Your task to perform on an android device: open app "DuckDuckGo Privacy Browser" Image 0: 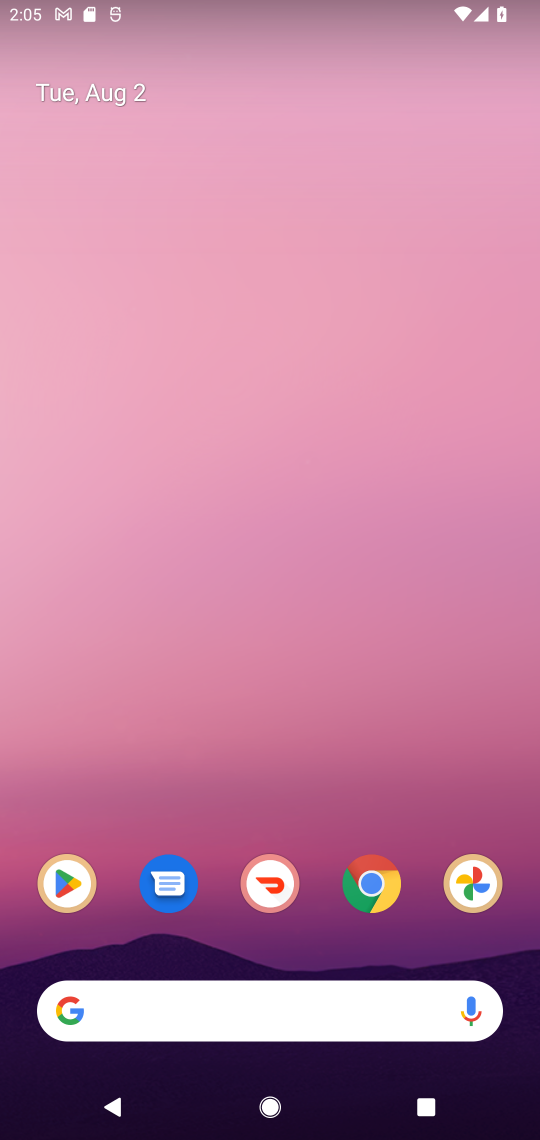
Step 0: click (62, 885)
Your task to perform on an android device: open app "DuckDuckGo Privacy Browser" Image 1: 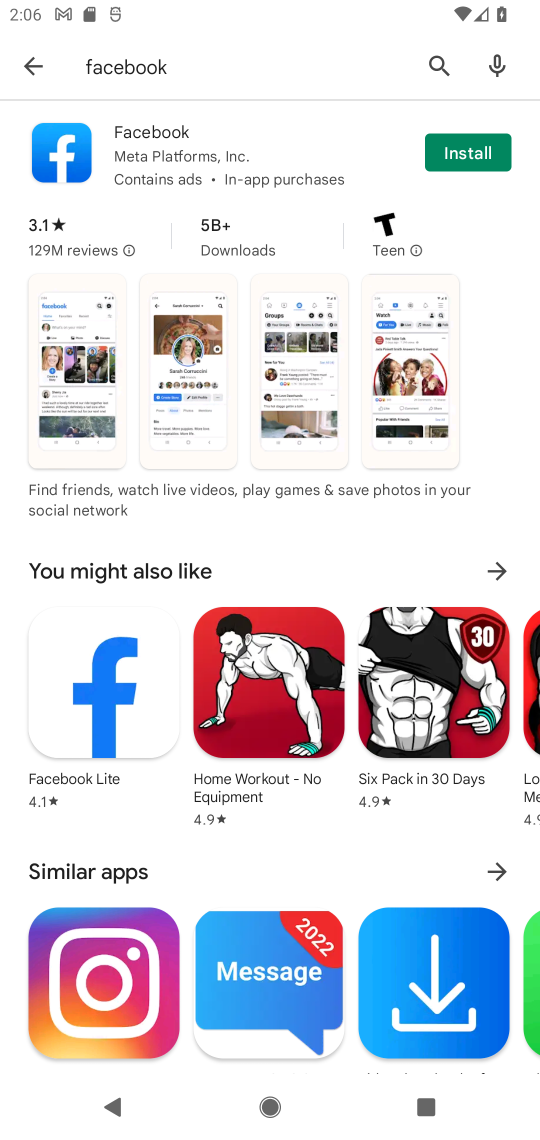
Step 1: press home button
Your task to perform on an android device: open app "DuckDuckGo Privacy Browser" Image 2: 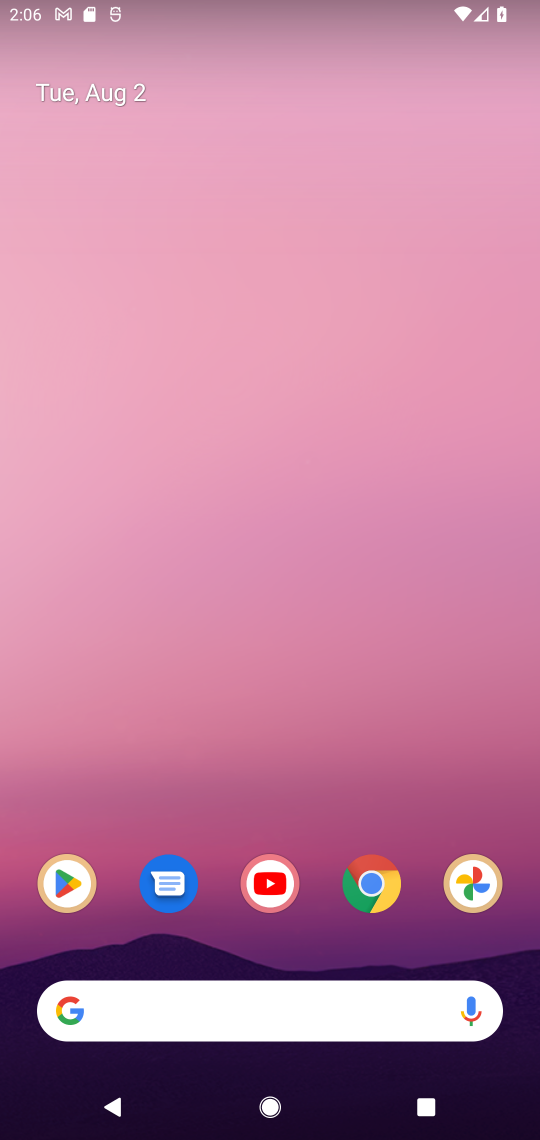
Step 2: click (69, 872)
Your task to perform on an android device: open app "DuckDuckGo Privacy Browser" Image 3: 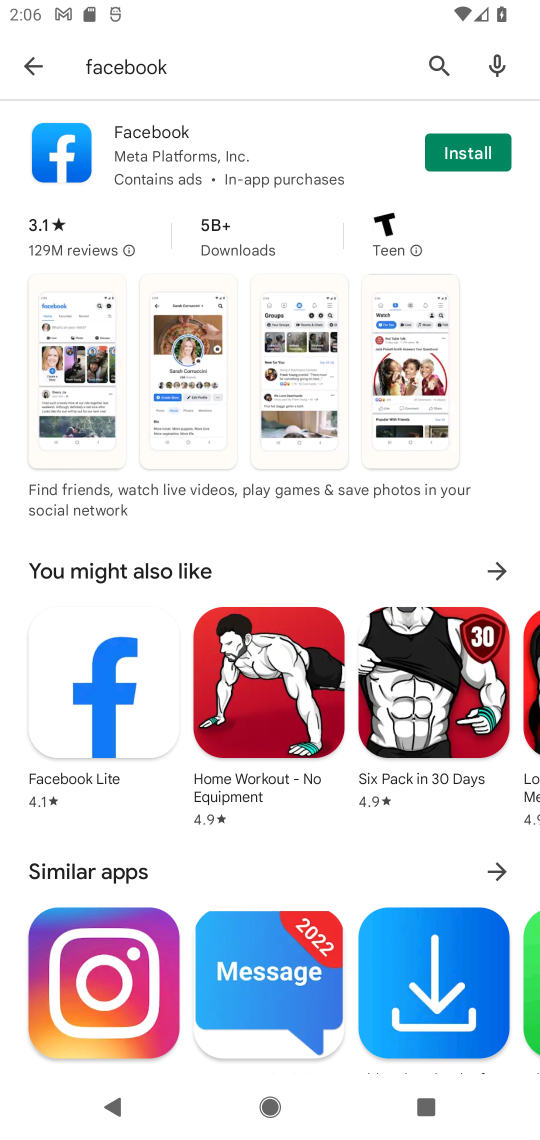
Step 3: click (435, 55)
Your task to perform on an android device: open app "DuckDuckGo Privacy Browser" Image 4: 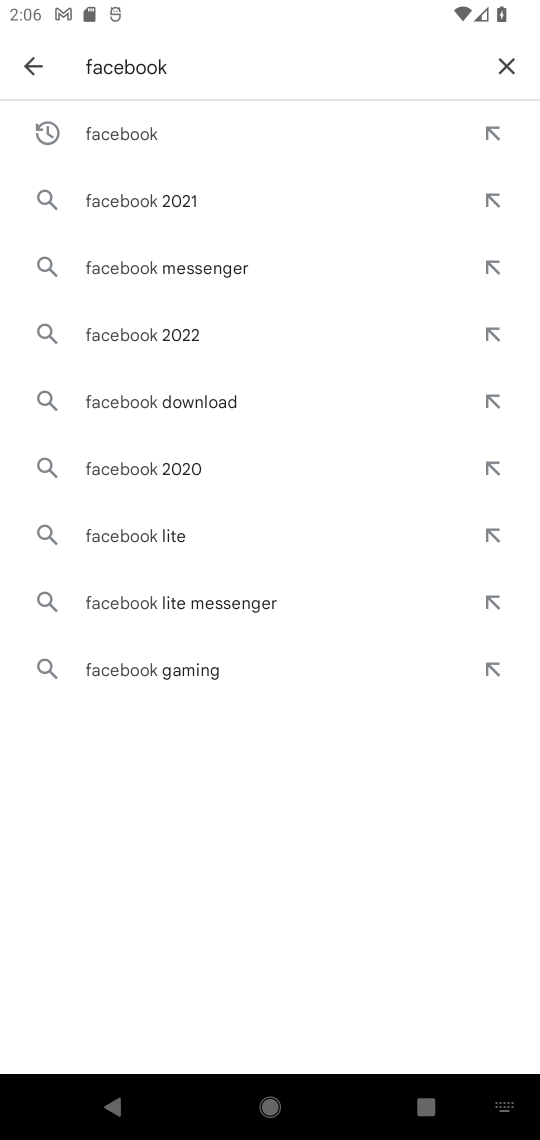
Step 4: click (500, 57)
Your task to perform on an android device: open app "DuckDuckGo Privacy Browser" Image 5: 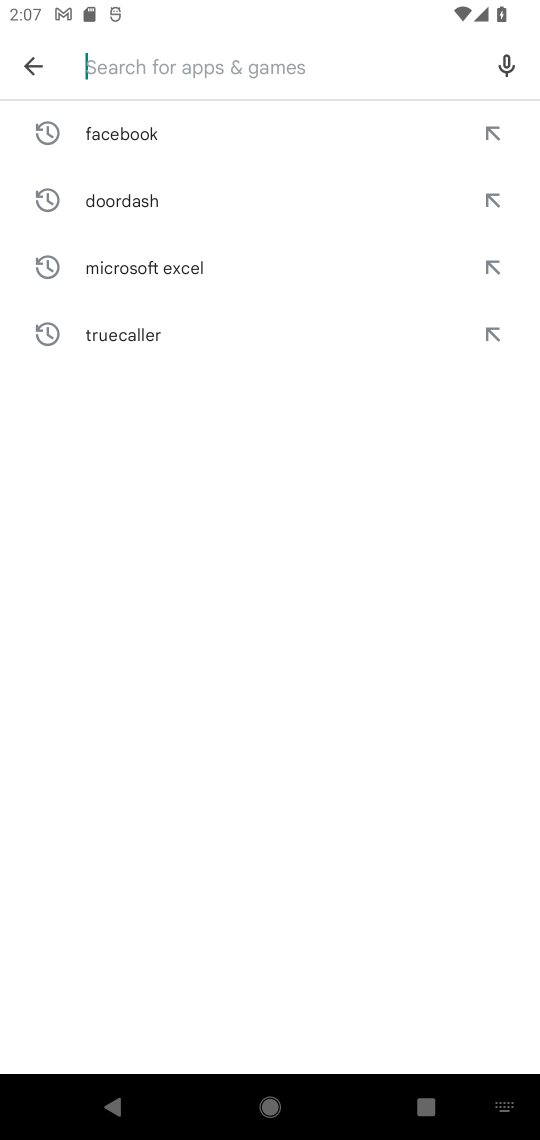
Step 5: type "DuckDuckGo Privacy Browser"
Your task to perform on an android device: open app "DuckDuckGo Privacy Browser" Image 6: 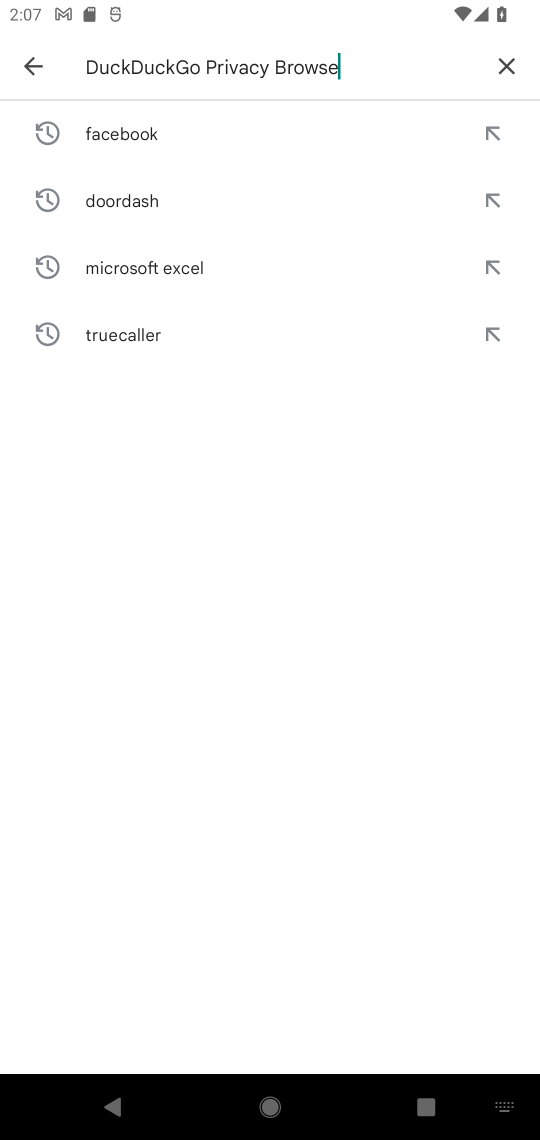
Step 6: type ""
Your task to perform on an android device: open app "DuckDuckGo Privacy Browser" Image 7: 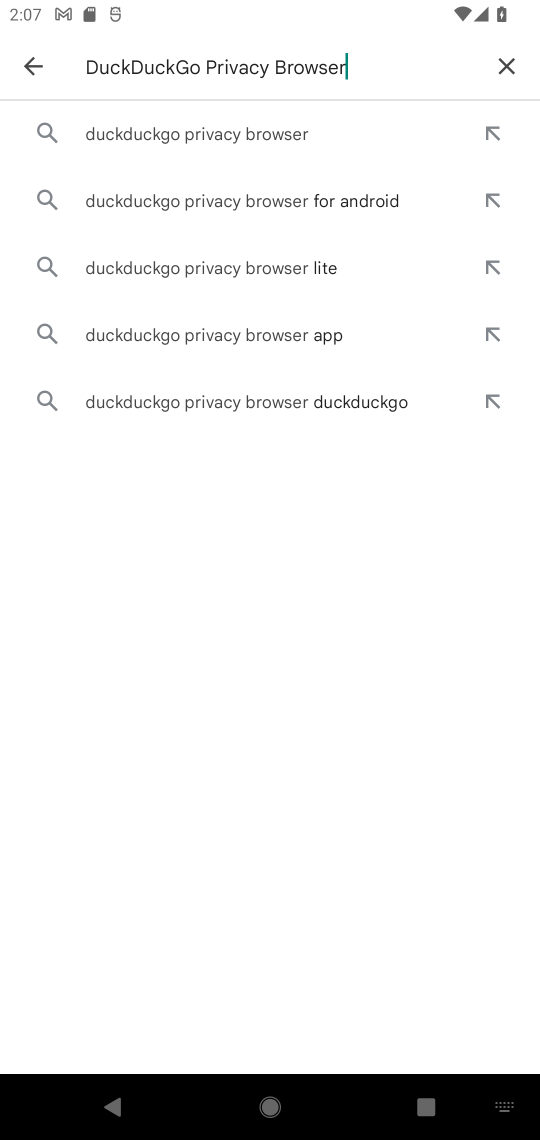
Step 7: click (197, 131)
Your task to perform on an android device: open app "DuckDuckGo Privacy Browser" Image 8: 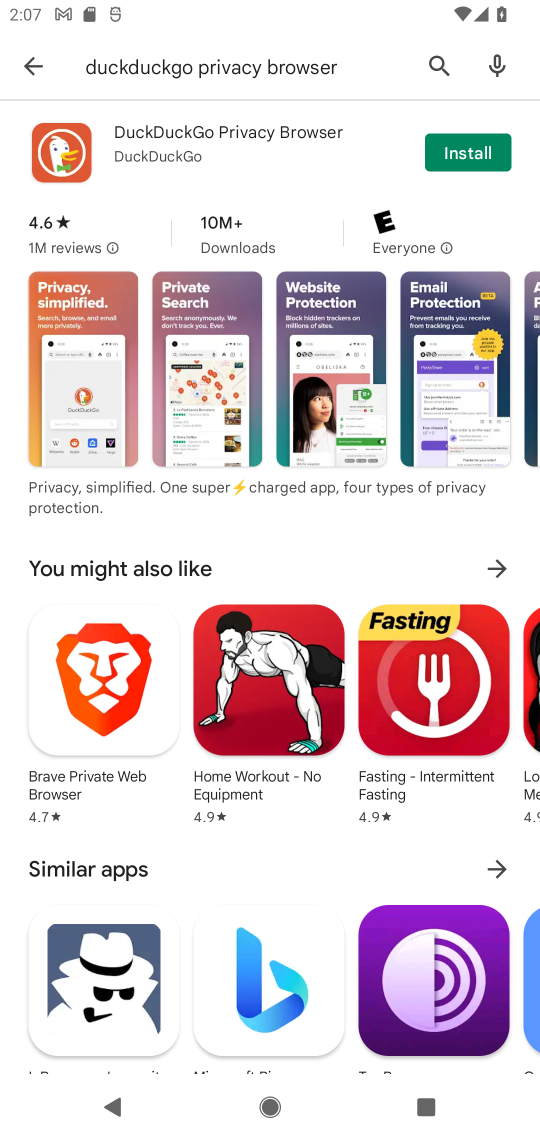
Step 8: click (481, 155)
Your task to perform on an android device: open app "DuckDuckGo Privacy Browser" Image 9: 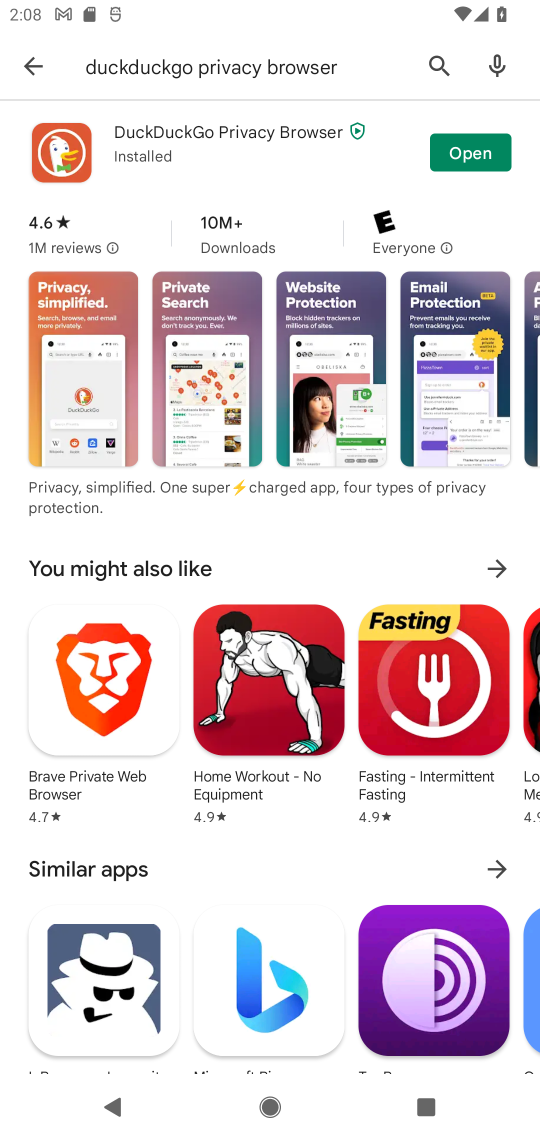
Step 9: click (455, 145)
Your task to perform on an android device: open app "DuckDuckGo Privacy Browser" Image 10: 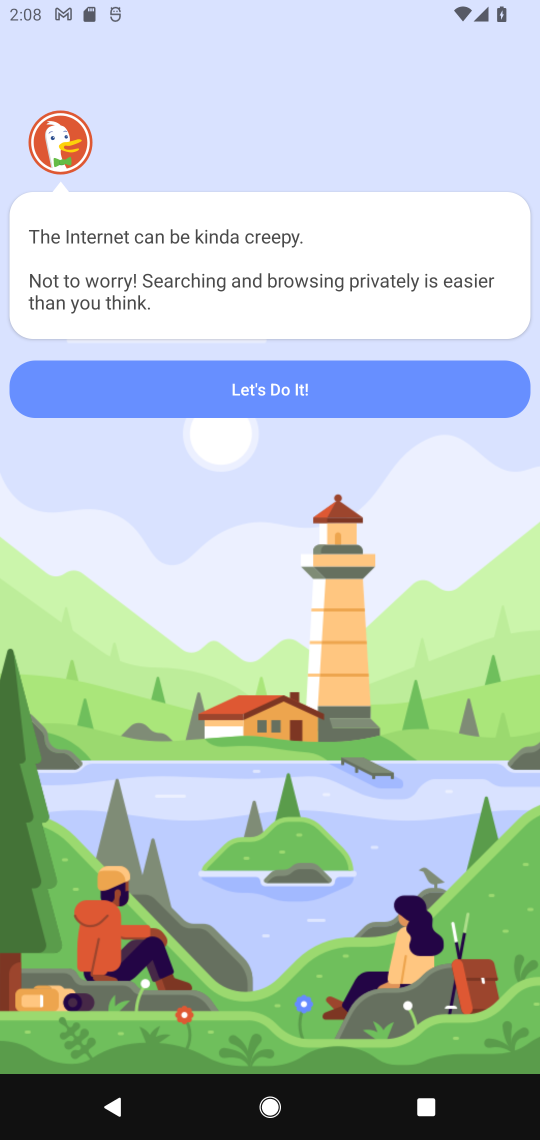
Step 10: task complete